Your task to perform on an android device: Empty the shopping cart on ebay. Add "dell xps" to the cart on ebay, then select checkout. Image 0: 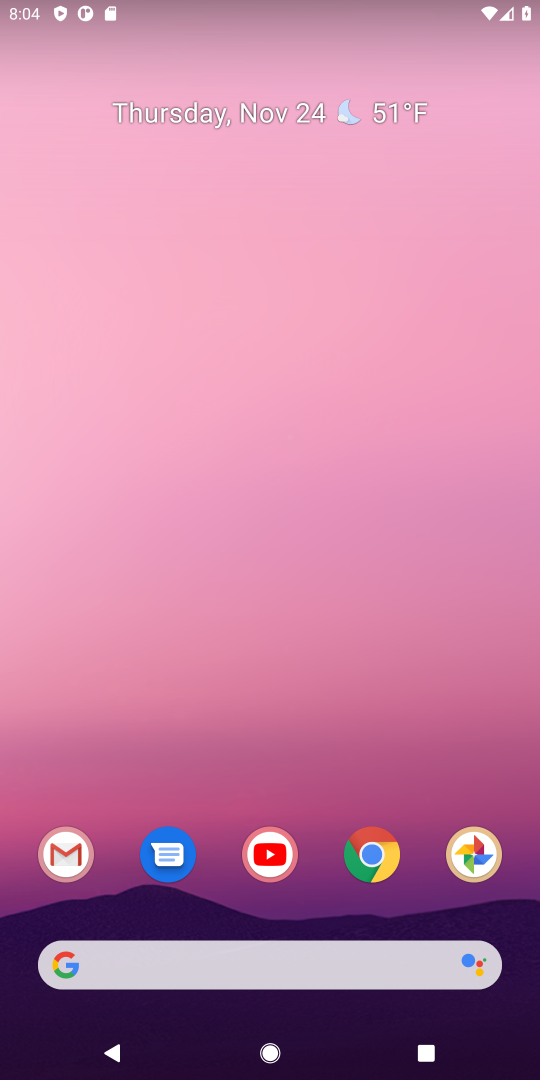
Step 0: click (371, 854)
Your task to perform on an android device: Empty the shopping cart on ebay. Add "dell xps" to the cart on ebay, then select checkout. Image 1: 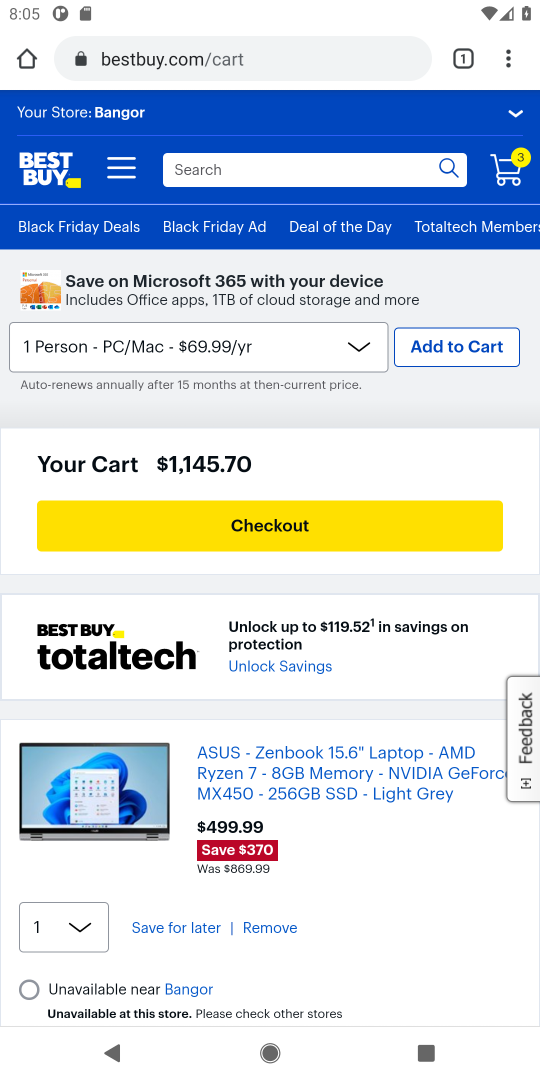
Step 1: click (175, 59)
Your task to perform on an android device: Empty the shopping cart on ebay. Add "dell xps" to the cart on ebay, then select checkout. Image 2: 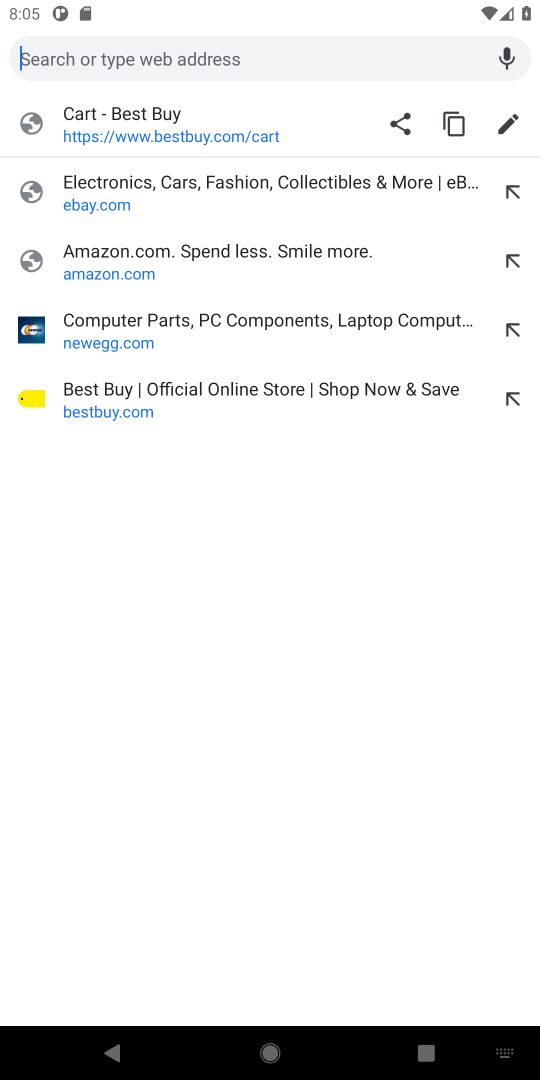
Step 2: click (89, 196)
Your task to perform on an android device: Empty the shopping cart on ebay. Add "dell xps" to the cart on ebay, then select checkout. Image 3: 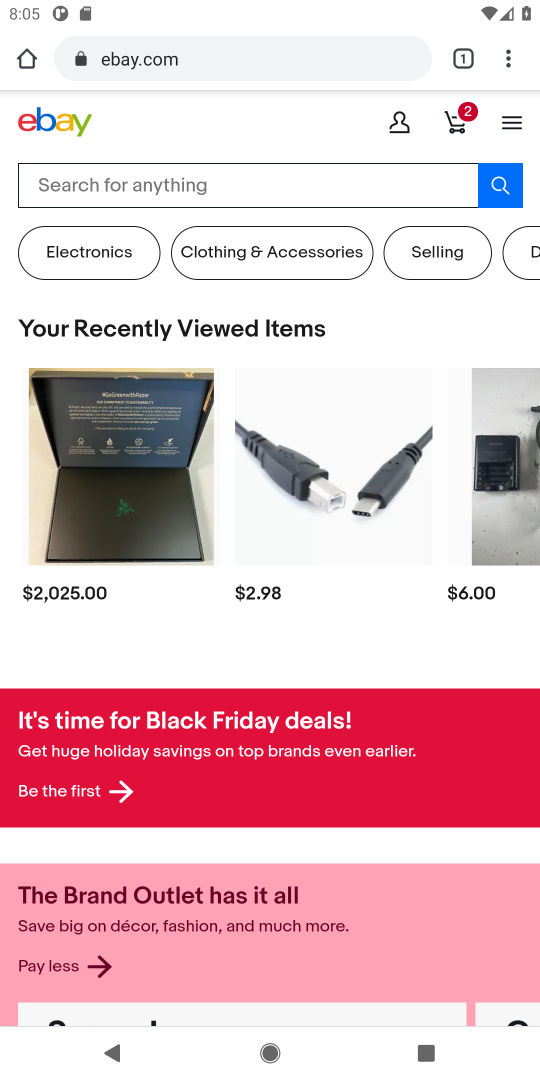
Step 3: click (459, 118)
Your task to perform on an android device: Empty the shopping cart on ebay. Add "dell xps" to the cart on ebay, then select checkout. Image 4: 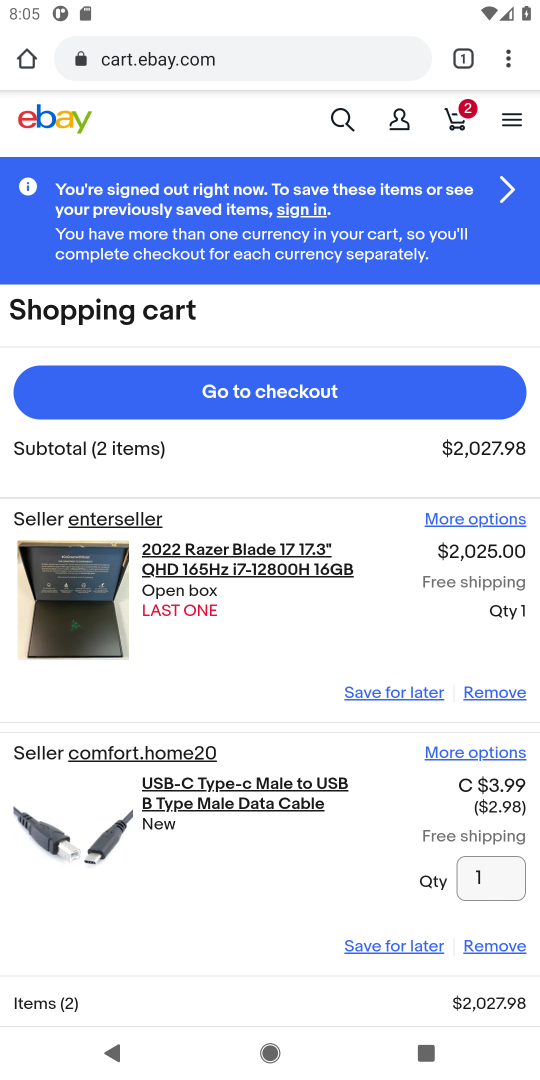
Step 4: click (480, 690)
Your task to perform on an android device: Empty the shopping cart on ebay. Add "dell xps" to the cart on ebay, then select checkout. Image 5: 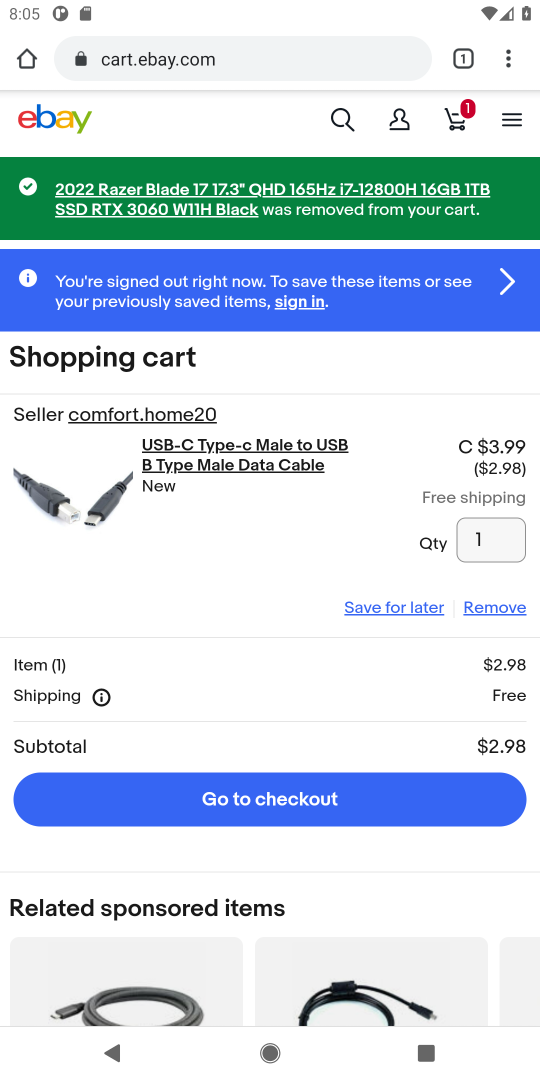
Step 5: click (492, 607)
Your task to perform on an android device: Empty the shopping cart on ebay. Add "dell xps" to the cart on ebay, then select checkout. Image 6: 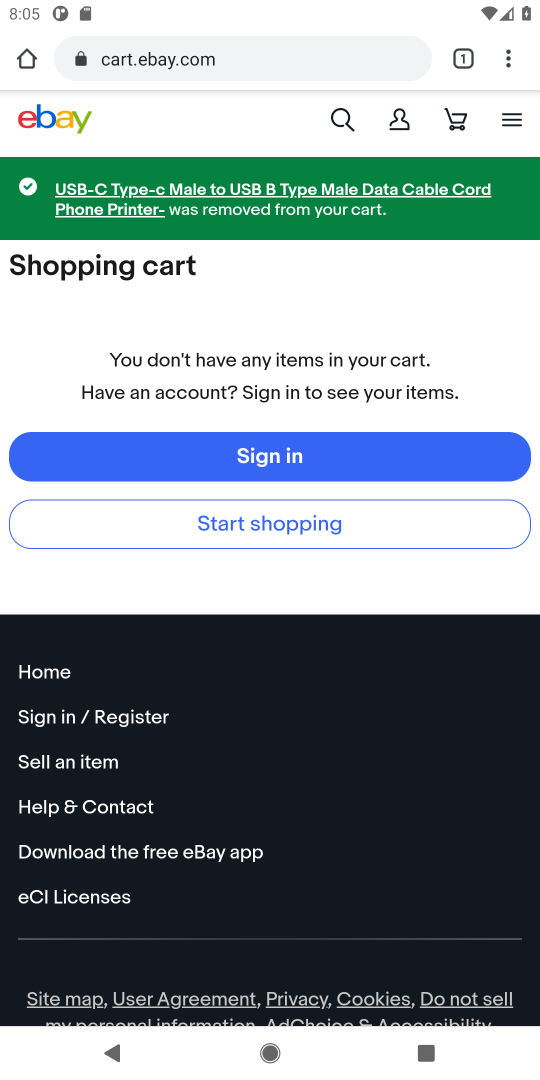
Step 6: click (350, 112)
Your task to perform on an android device: Empty the shopping cart on ebay. Add "dell xps" to the cart on ebay, then select checkout. Image 7: 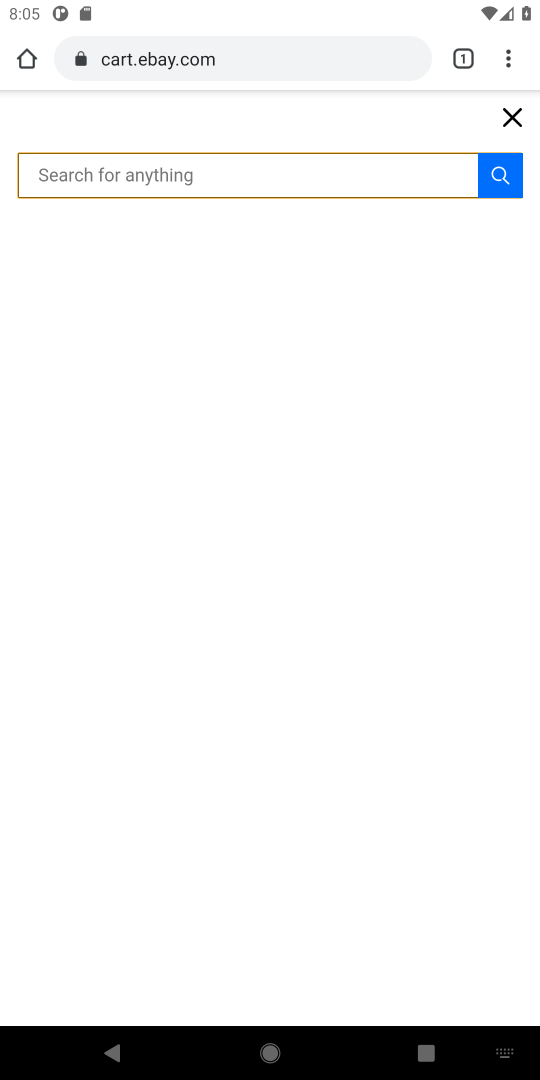
Step 7: type "dell xps"
Your task to perform on an android device: Empty the shopping cart on ebay. Add "dell xps" to the cart on ebay, then select checkout. Image 8: 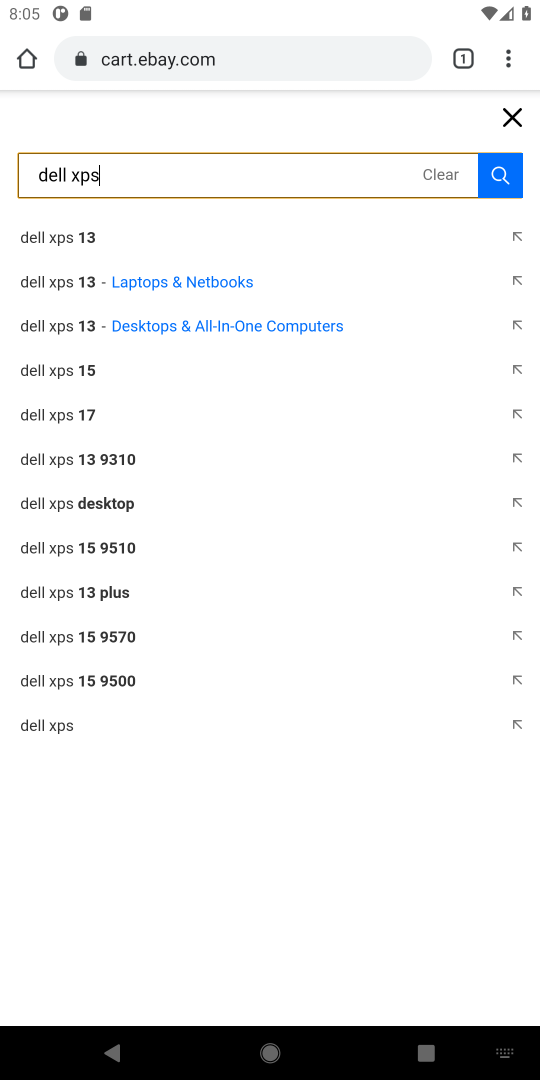
Step 8: click (59, 239)
Your task to perform on an android device: Empty the shopping cart on ebay. Add "dell xps" to the cart on ebay, then select checkout. Image 9: 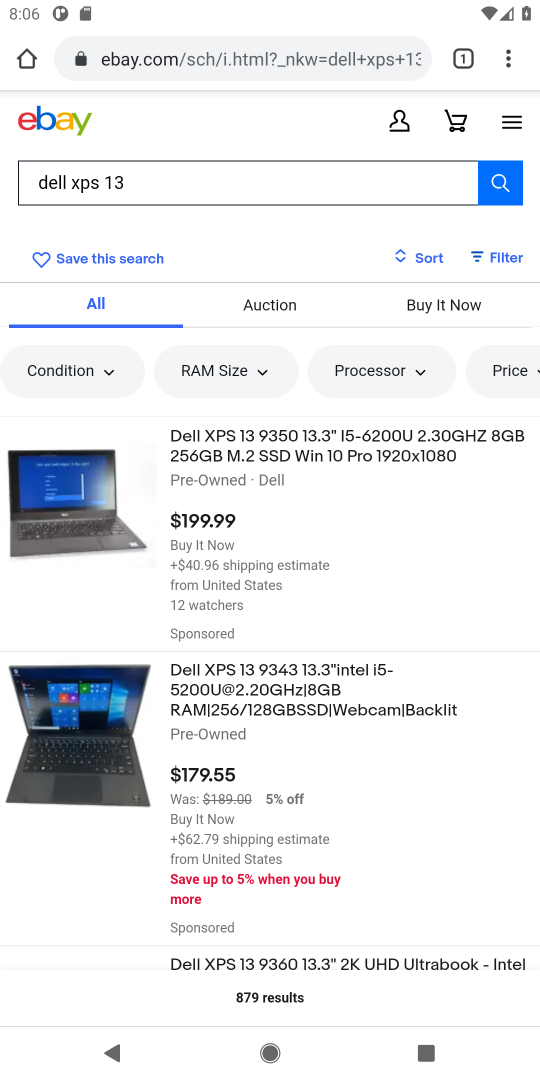
Step 9: click (88, 520)
Your task to perform on an android device: Empty the shopping cart on ebay. Add "dell xps" to the cart on ebay, then select checkout. Image 10: 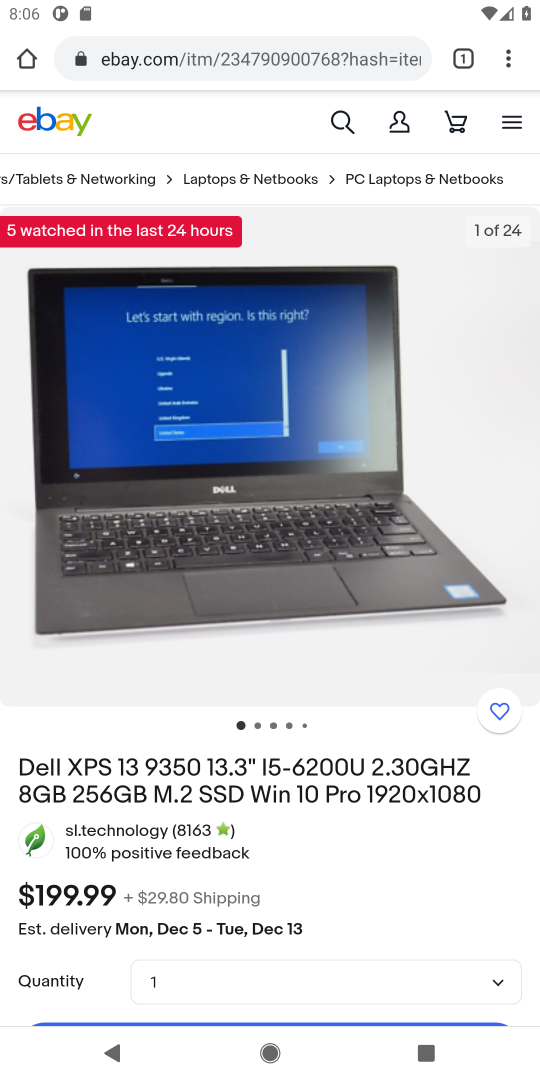
Step 10: drag from (386, 859) to (309, 322)
Your task to perform on an android device: Empty the shopping cart on ebay. Add "dell xps" to the cart on ebay, then select checkout. Image 11: 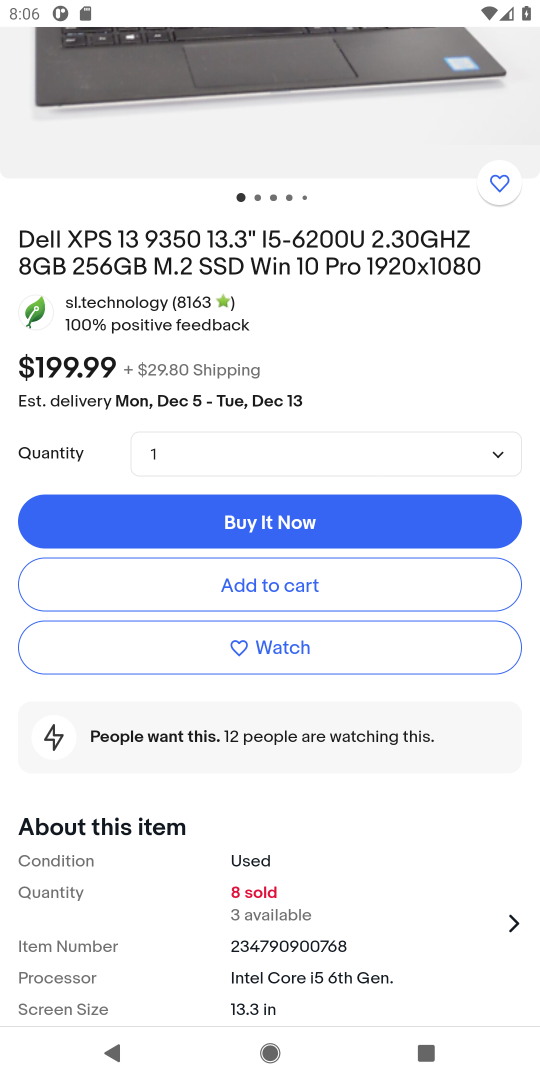
Step 11: click (247, 585)
Your task to perform on an android device: Empty the shopping cart on ebay. Add "dell xps" to the cart on ebay, then select checkout. Image 12: 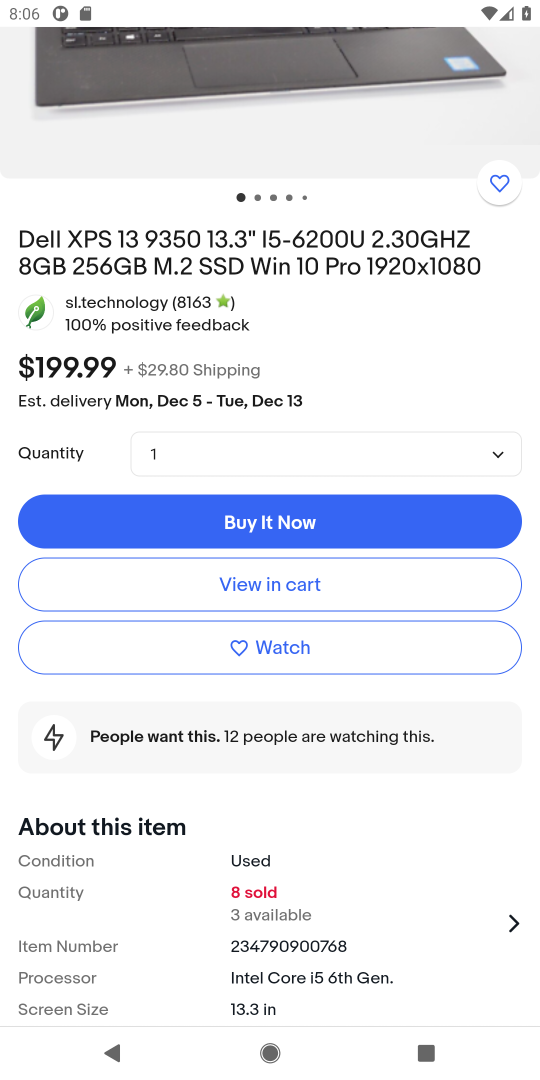
Step 12: click (247, 585)
Your task to perform on an android device: Empty the shopping cart on ebay. Add "dell xps" to the cart on ebay, then select checkout. Image 13: 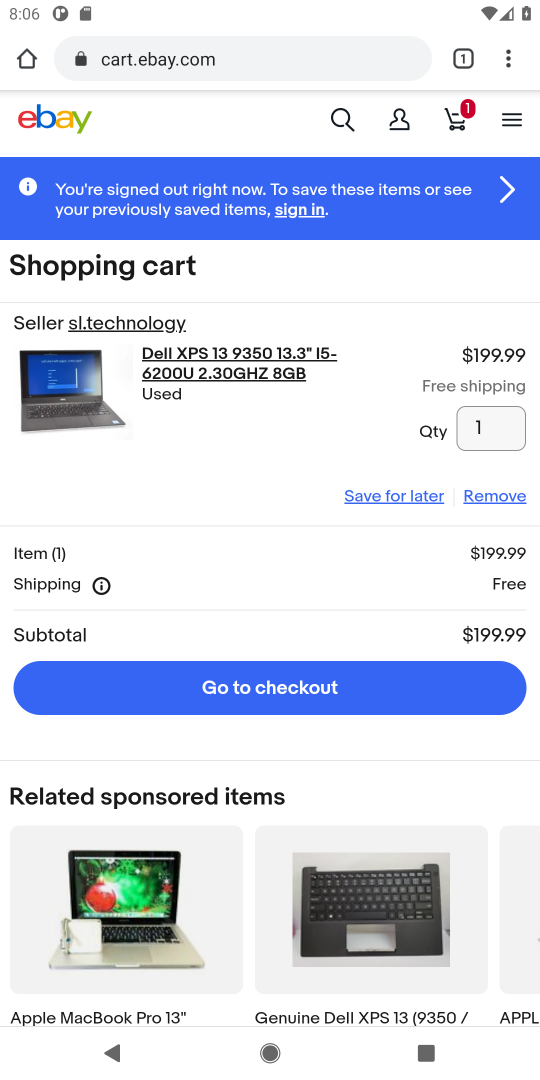
Step 13: click (251, 694)
Your task to perform on an android device: Empty the shopping cart on ebay. Add "dell xps" to the cart on ebay, then select checkout. Image 14: 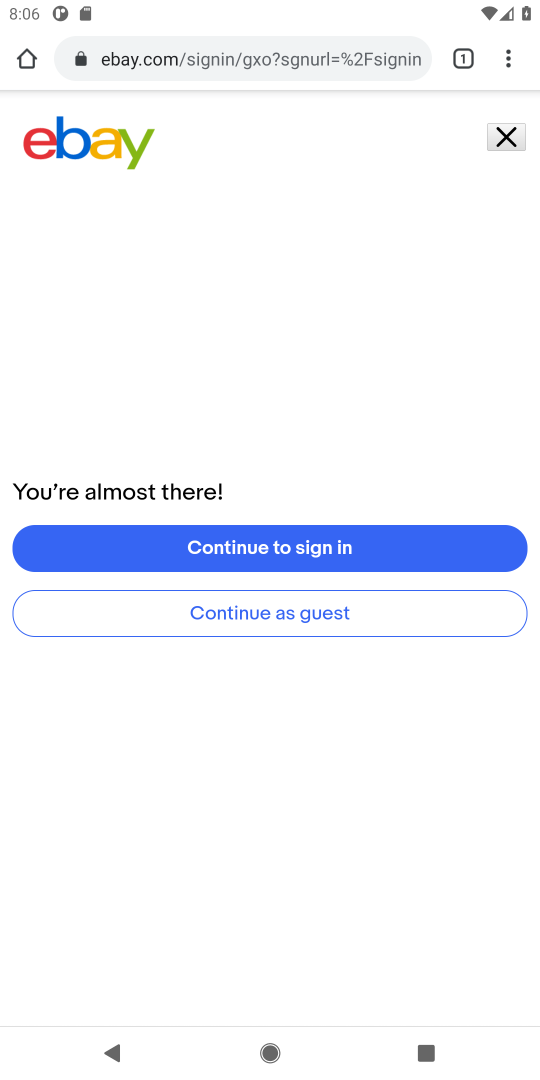
Step 14: task complete